Your task to perform on an android device: change keyboard looks Image 0: 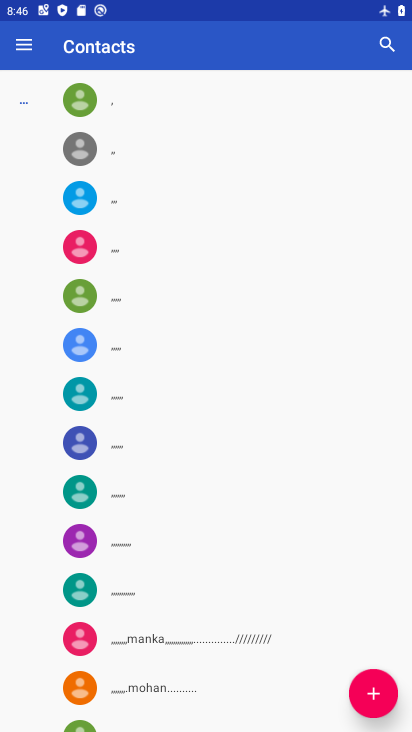
Step 0: press home button
Your task to perform on an android device: change keyboard looks Image 1: 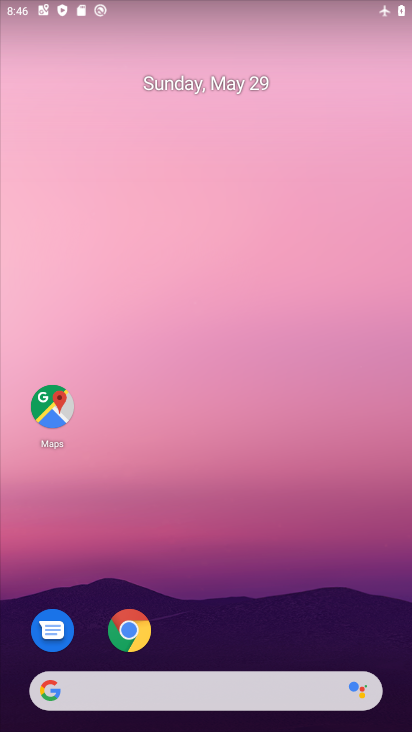
Step 1: drag from (231, 669) to (216, 195)
Your task to perform on an android device: change keyboard looks Image 2: 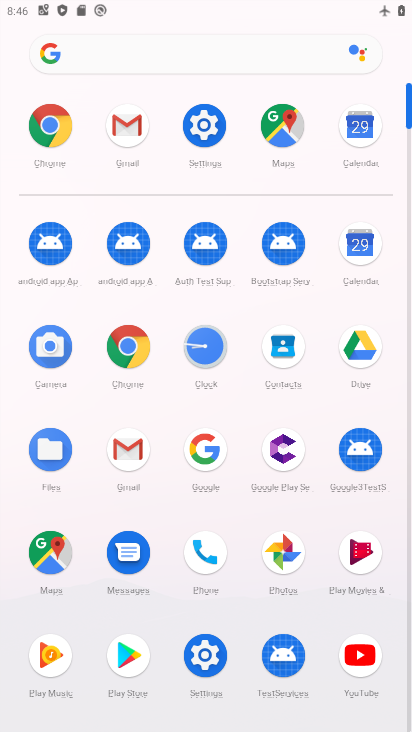
Step 2: click (235, 678)
Your task to perform on an android device: change keyboard looks Image 3: 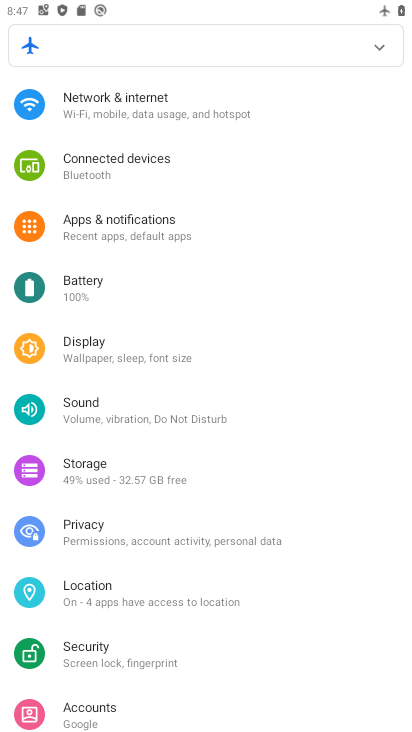
Step 3: drag from (235, 678) to (191, 337)
Your task to perform on an android device: change keyboard looks Image 4: 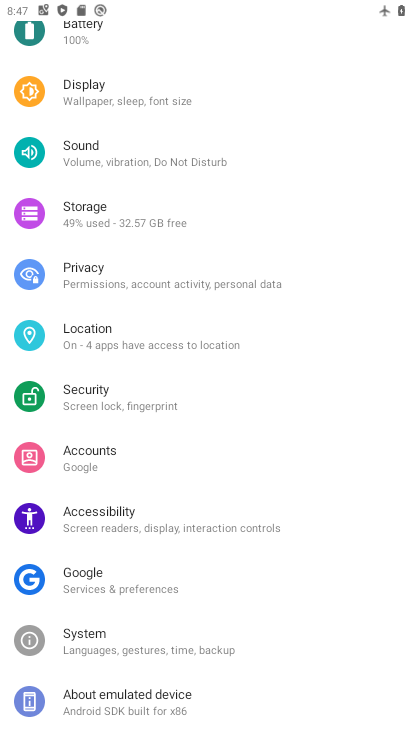
Step 4: click (97, 631)
Your task to perform on an android device: change keyboard looks Image 5: 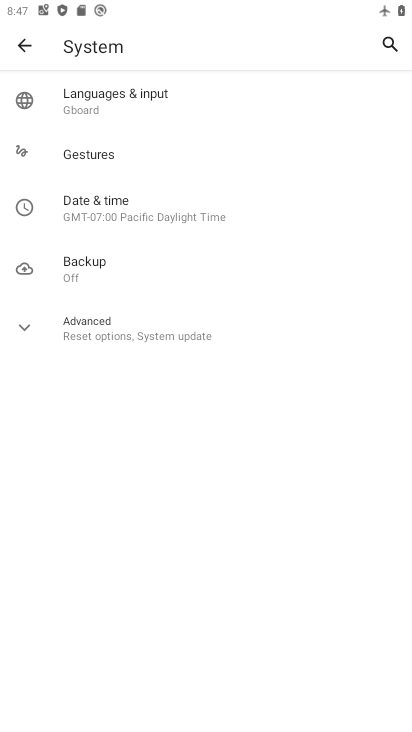
Step 5: click (112, 113)
Your task to perform on an android device: change keyboard looks Image 6: 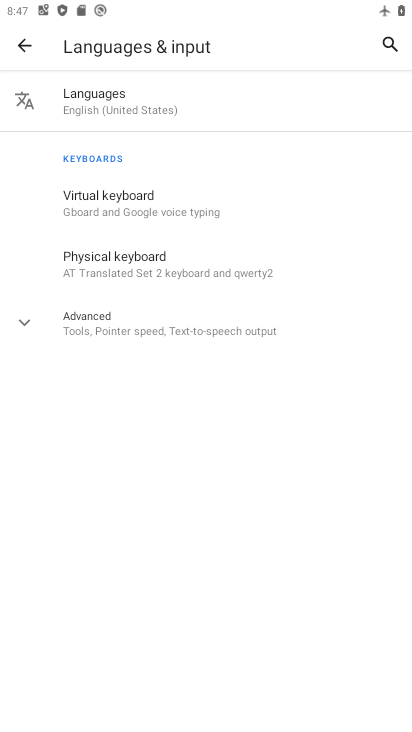
Step 6: click (104, 201)
Your task to perform on an android device: change keyboard looks Image 7: 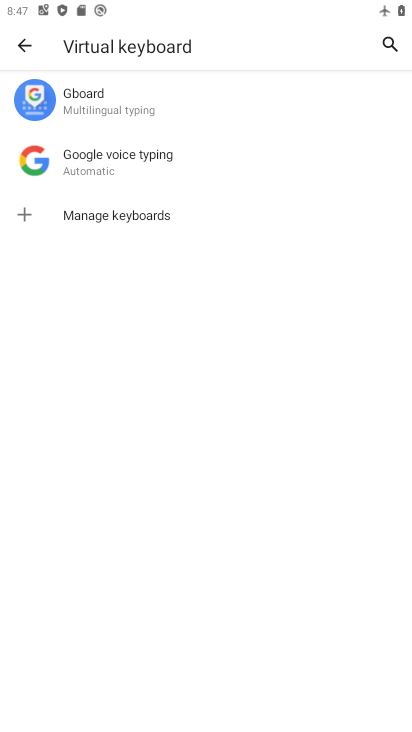
Step 7: click (111, 115)
Your task to perform on an android device: change keyboard looks Image 8: 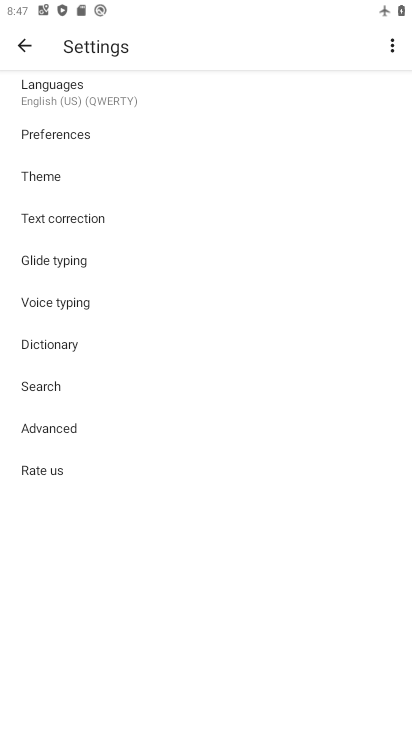
Step 8: click (38, 168)
Your task to perform on an android device: change keyboard looks Image 9: 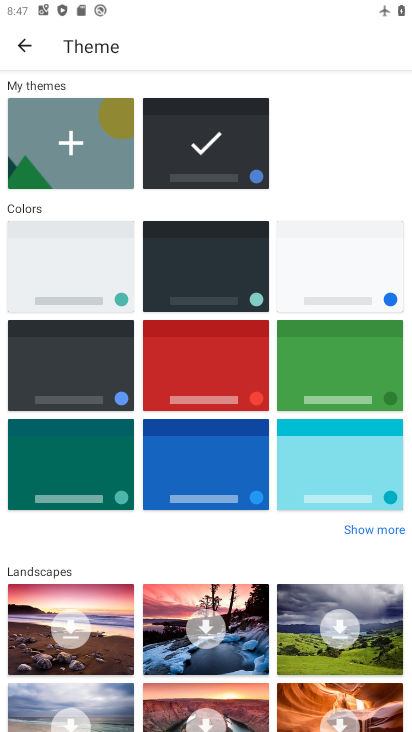
Step 9: click (114, 256)
Your task to perform on an android device: change keyboard looks Image 10: 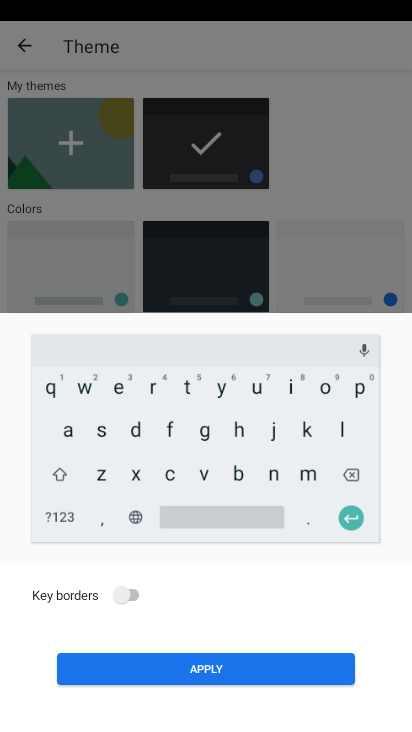
Step 10: click (183, 678)
Your task to perform on an android device: change keyboard looks Image 11: 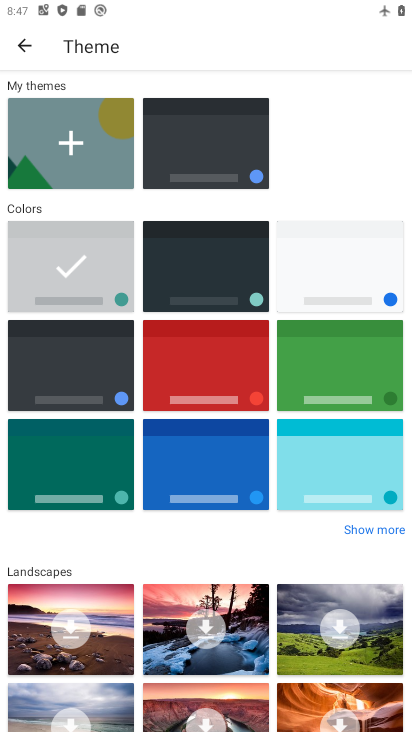
Step 11: task complete